Your task to perform on an android device: Search for the new ikea dresser Image 0: 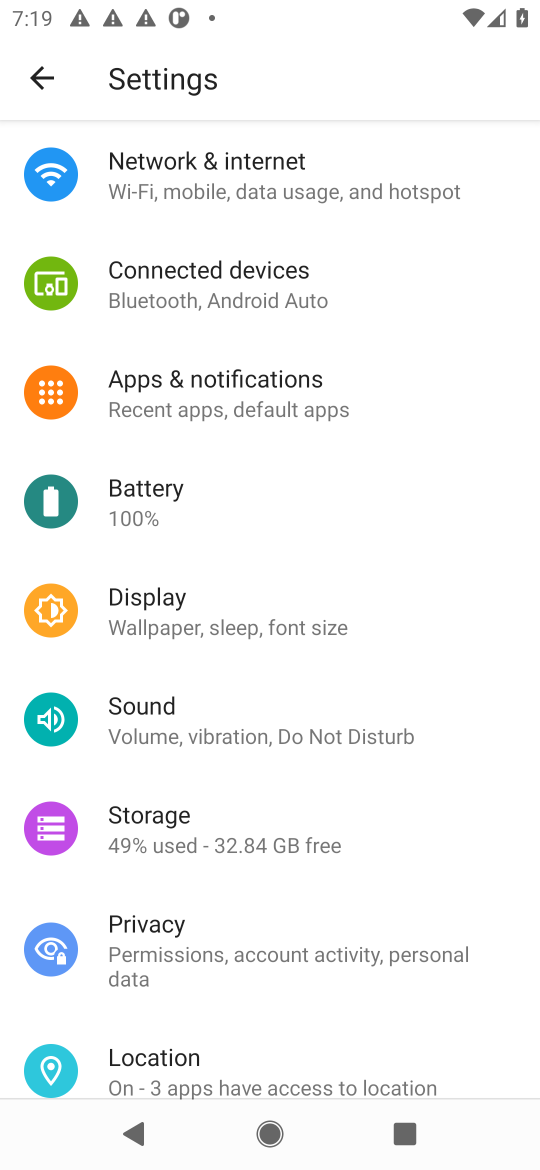
Step 0: press home button
Your task to perform on an android device: Search for the new ikea dresser Image 1: 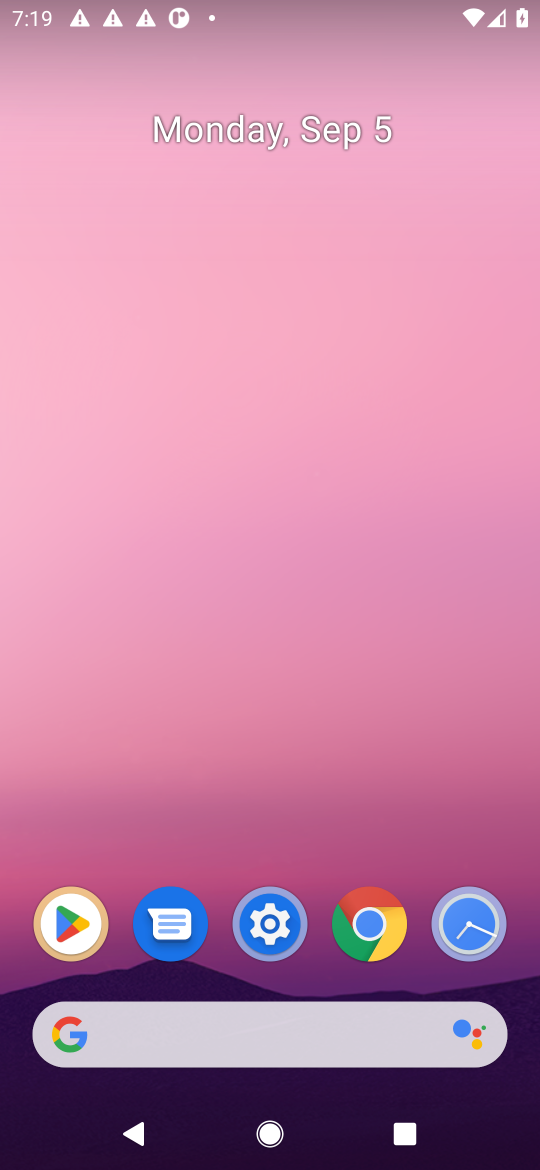
Step 1: click (309, 1022)
Your task to perform on an android device: Search for the new ikea dresser Image 2: 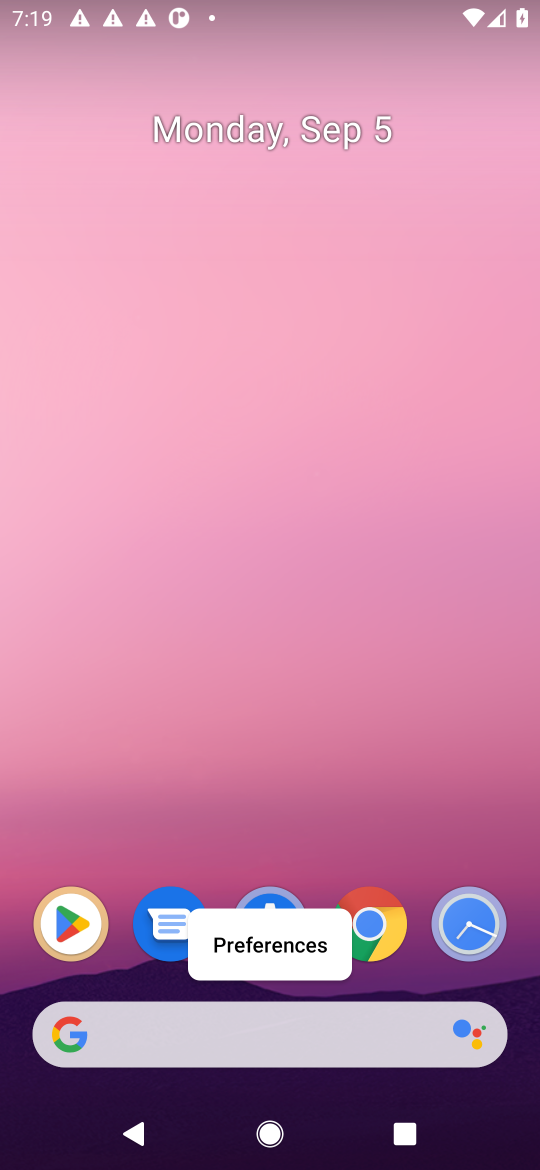
Step 2: click (208, 1021)
Your task to perform on an android device: Search for the new ikea dresser Image 3: 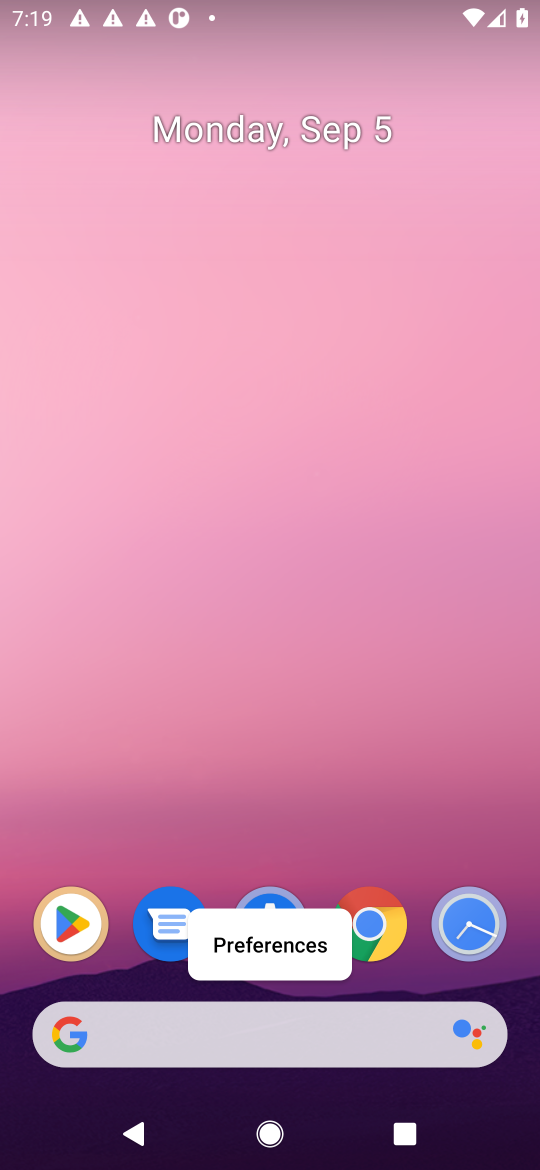
Step 3: click (277, 1041)
Your task to perform on an android device: Search for the new ikea dresser Image 4: 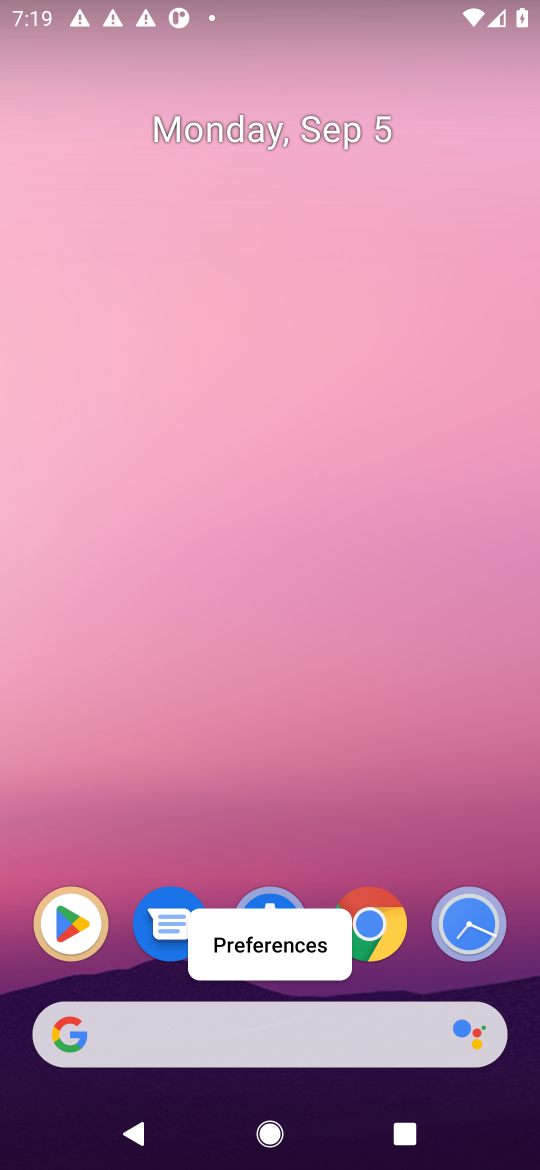
Step 4: click (168, 1031)
Your task to perform on an android device: Search for the new ikea dresser Image 5: 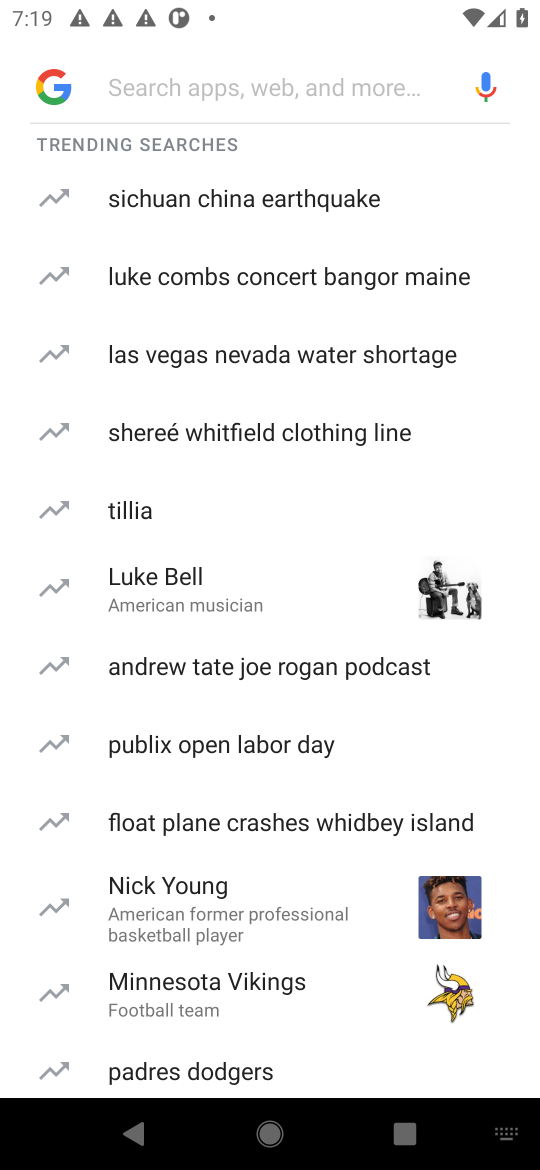
Step 5: press enter
Your task to perform on an android device: Search for the new ikea dresser Image 6: 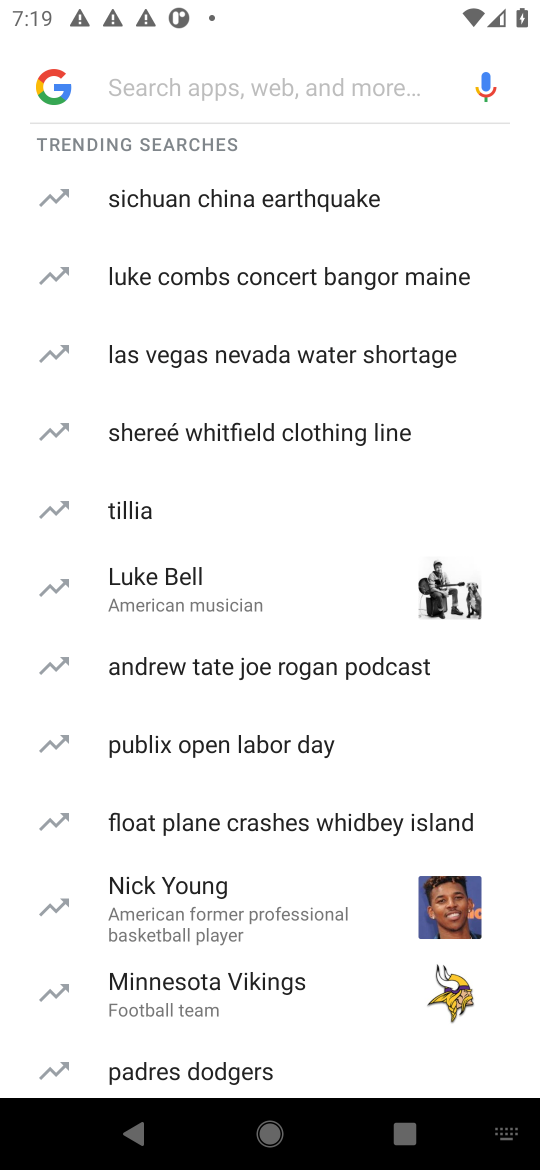
Step 6: type "ikea"
Your task to perform on an android device: Search for the new ikea dresser Image 7: 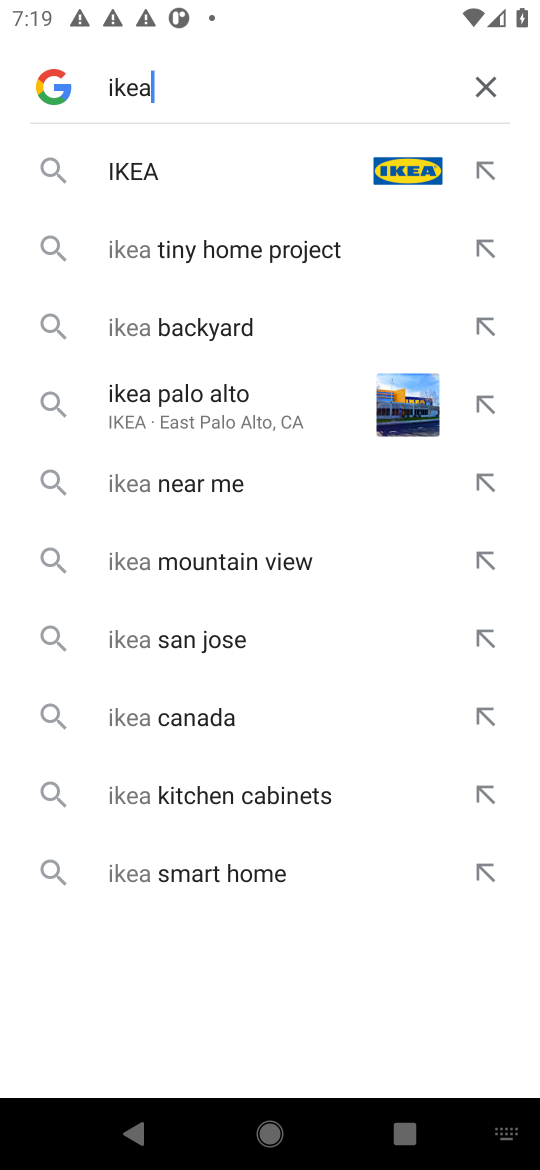
Step 7: click (232, 173)
Your task to perform on an android device: Search for the new ikea dresser Image 8: 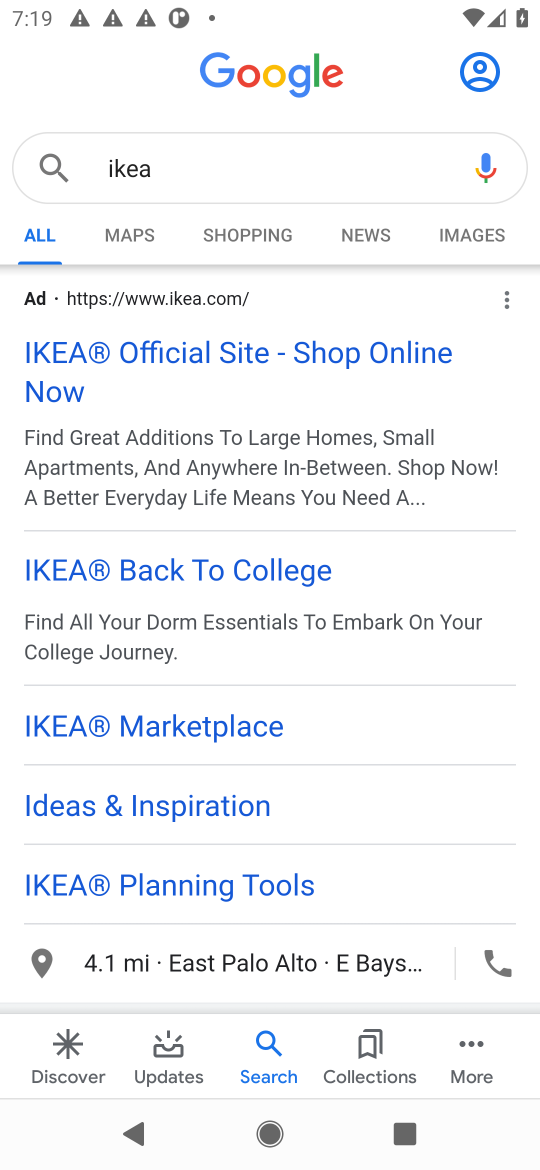
Step 8: click (239, 347)
Your task to perform on an android device: Search for the new ikea dresser Image 9: 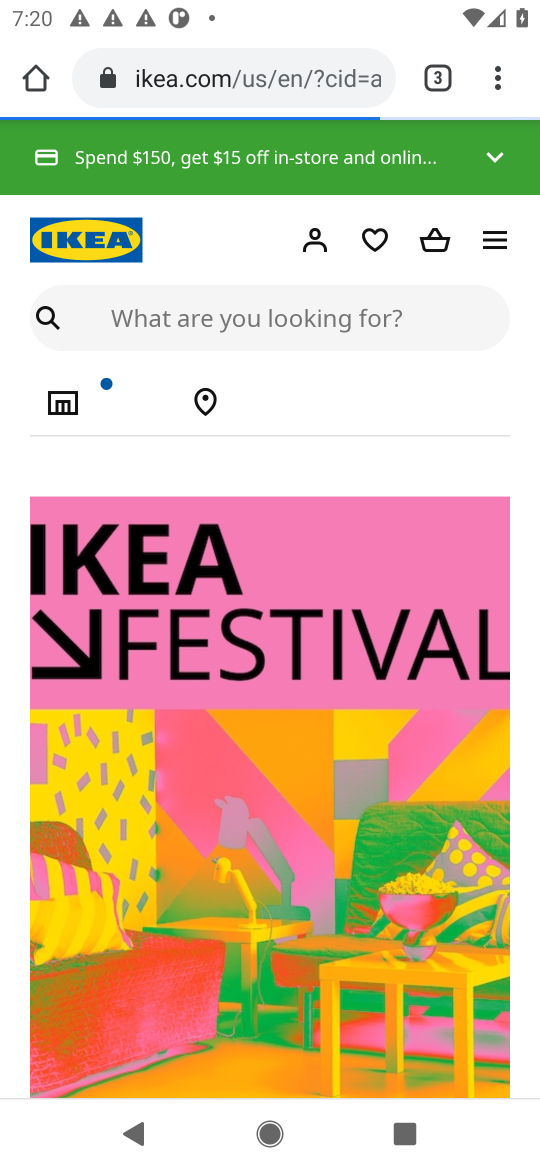
Step 9: click (280, 305)
Your task to perform on an android device: Search for the new ikea dresser Image 10: 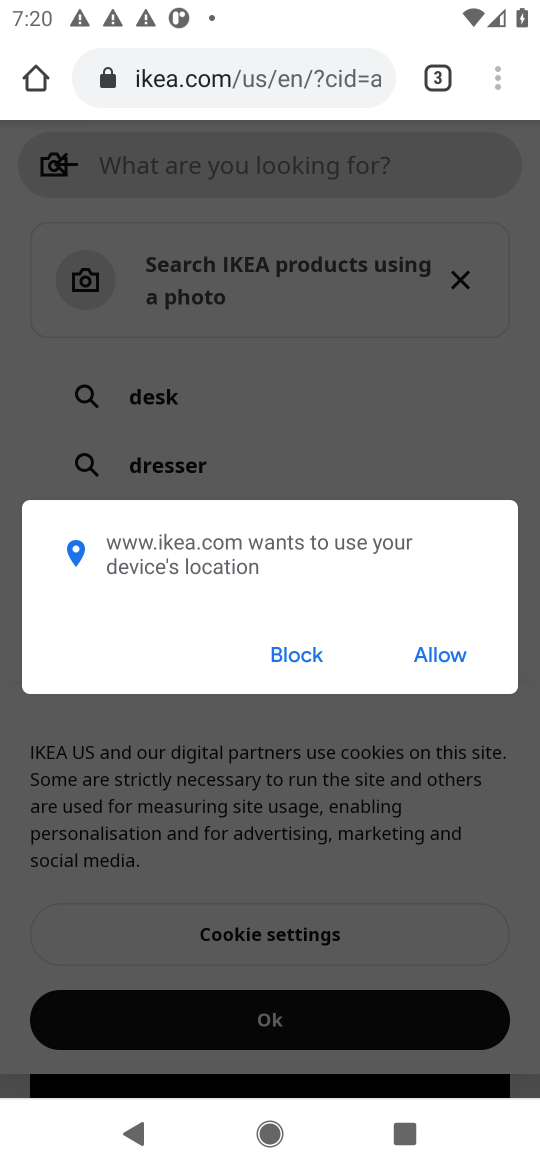
Step 10: click (296, 646)
Your task to perform on an android device: Search for the new ikea dresser Image 11: 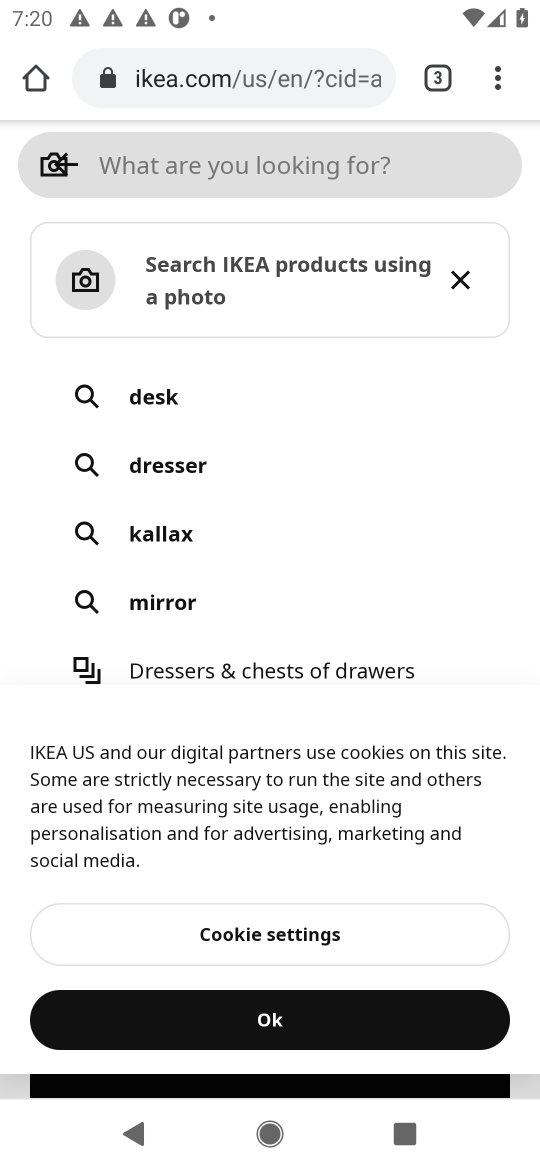
Step 11: click (199, 467)
Your task to perform on an android device: Search for the new ikea dresser Image 12: 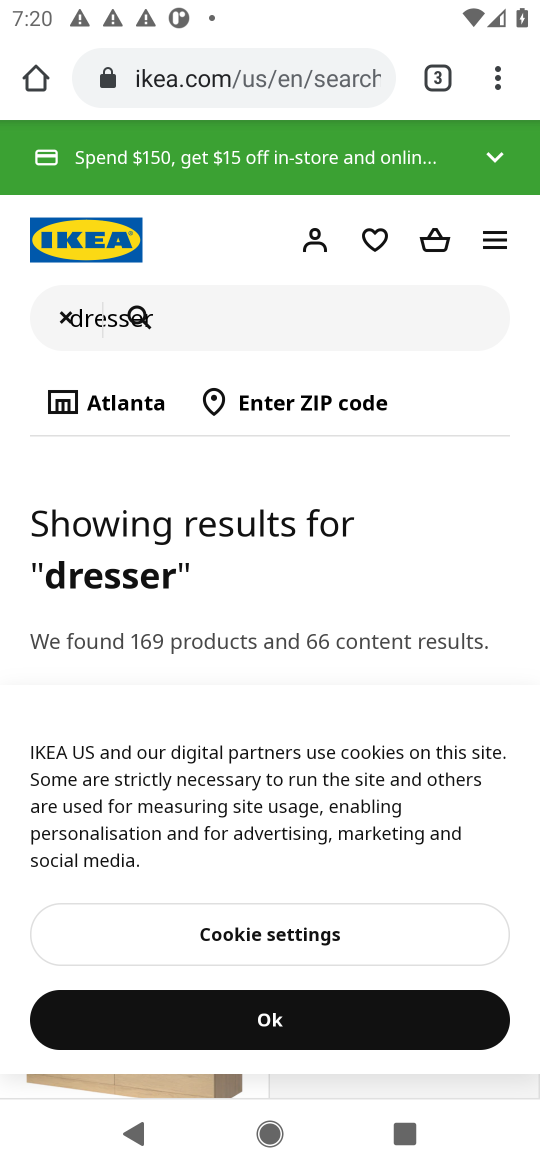
Step 12: task complete